Your task to perform on an android device: Open maps Image 0: 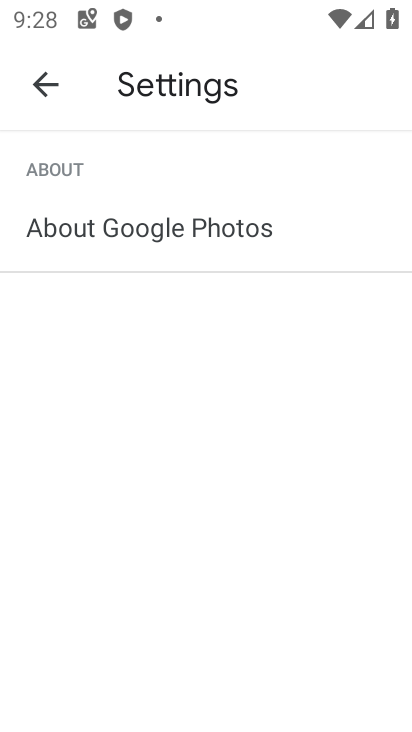
Step 0: press home button
Your task to perform on an android device: Open maps Image 1: 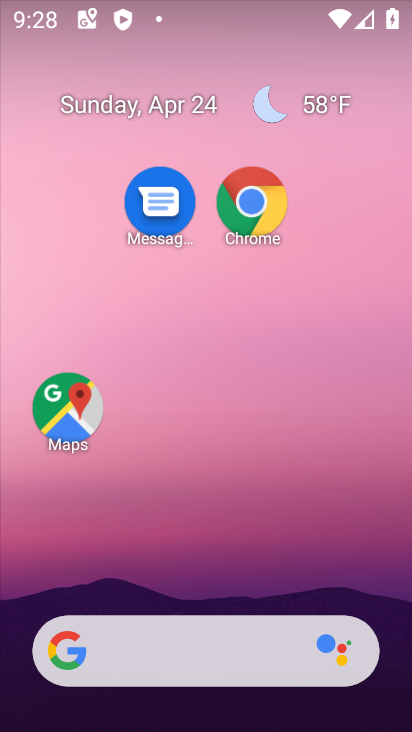
Step 1: drag from (208, 720) to (203, 191)
Your task to perform on an android device: Open maps Image 2: 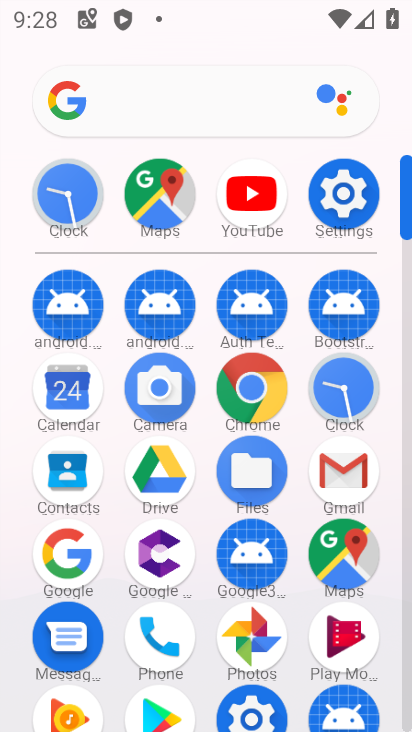
Step 2: click (164, 200)
Your task to perform on an android device: Open maps Image 3: 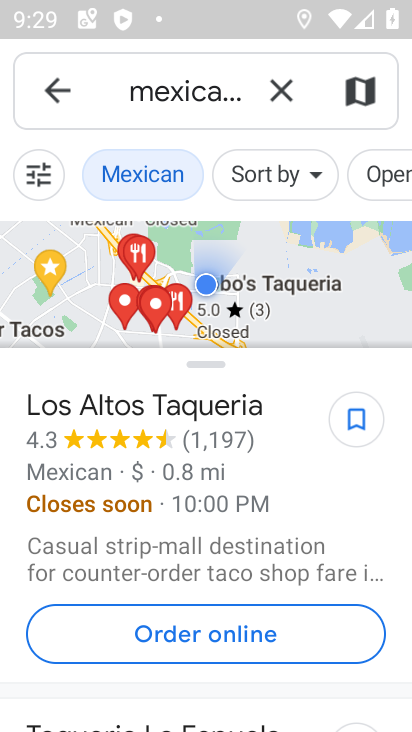
Step 3: task complete